Your task to perform on an android device: turn on priority inbox in the gmail app Image 0: 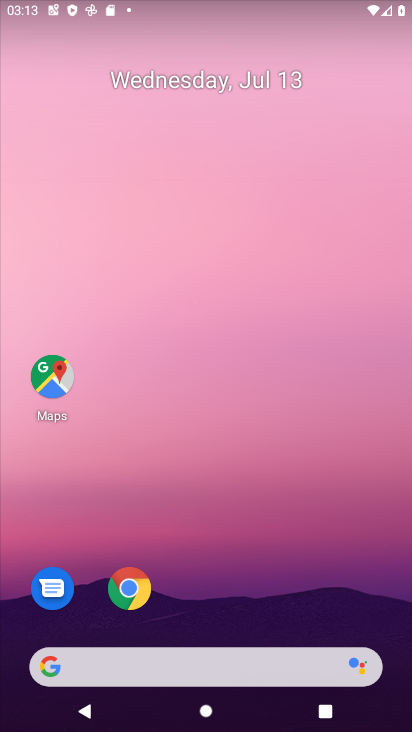
Step 0: drag from (379, 657) to (312, 192)
Your task to perform on an android device: turn on priority inbox in the gmail app Image 1: 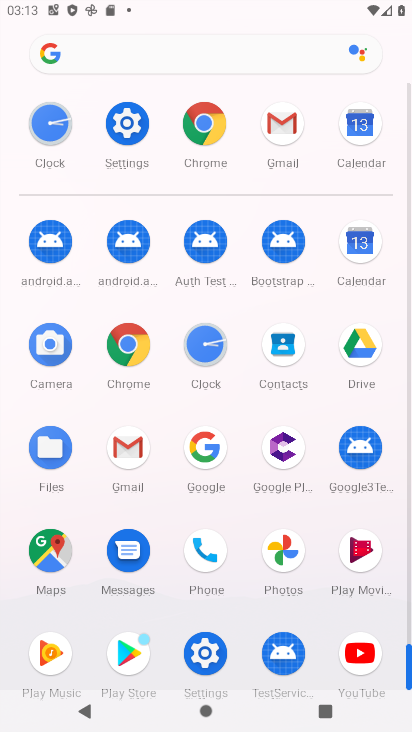
Step 1: click (136, 453)
Your task to perform on an android device: turn on priority inbox in the gmail app Image 2: 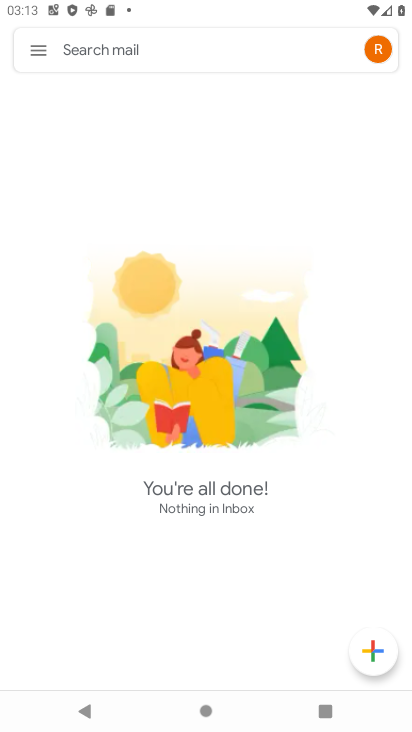
Step 2: click (43, 55)
Your task to perform on an android device: turn on priority inbox in the gmail app Image 3: 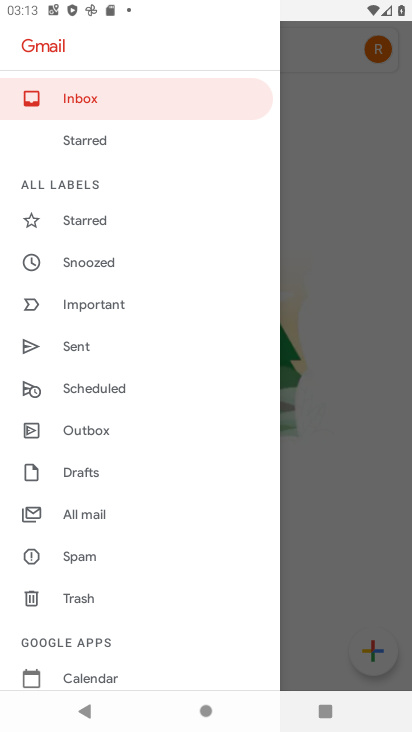
Step 3: drag from (167, 648) to (131, 238)
Your task to perform on an android device: turn on priority inbox in the gmail app Image 4: 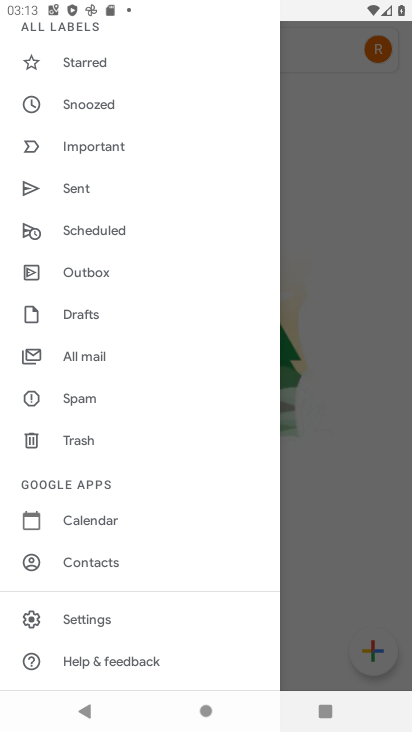
Step 4: click (99, 621)
Your task to perform on an android device: turn on priority inbox in the gmail app Image 5: 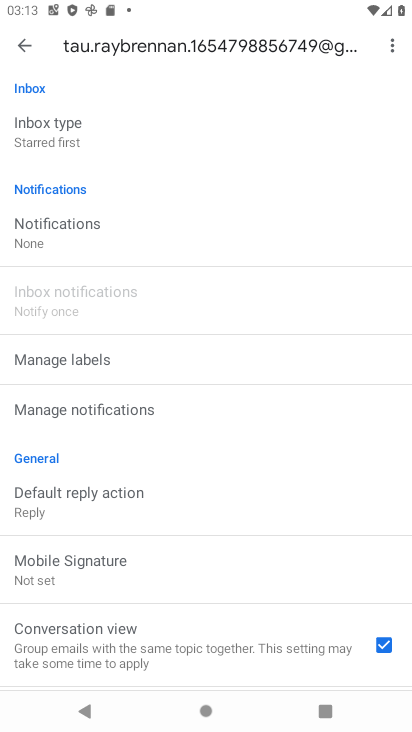
Step 5: click (40, 126)
Your task to perform on an android device: turn on priority inbox in the gmail app Image 6: 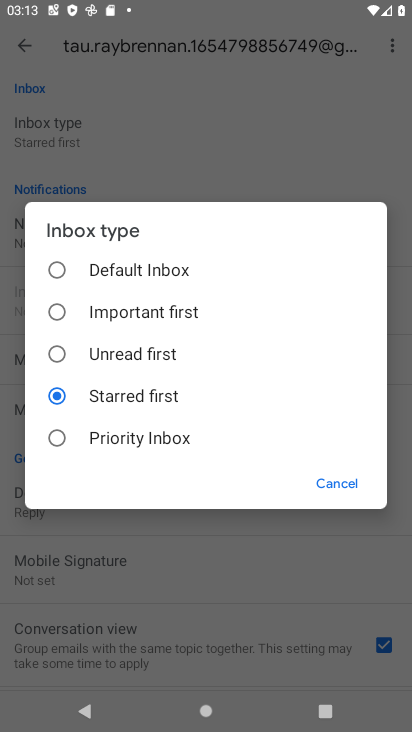
Step 6: click (112, 429)
Your task to perform on an android device: turn on priority inbox in the gmail app Image 7: 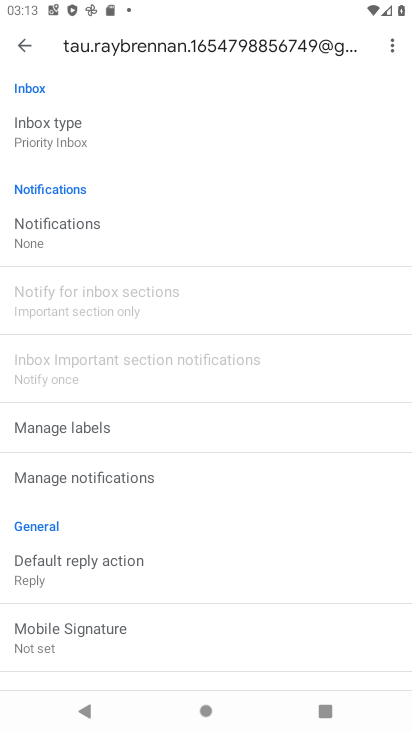
Step 7: task complete